Your task to perform on an android device: turn smart compose on in the gmail app Image 0: 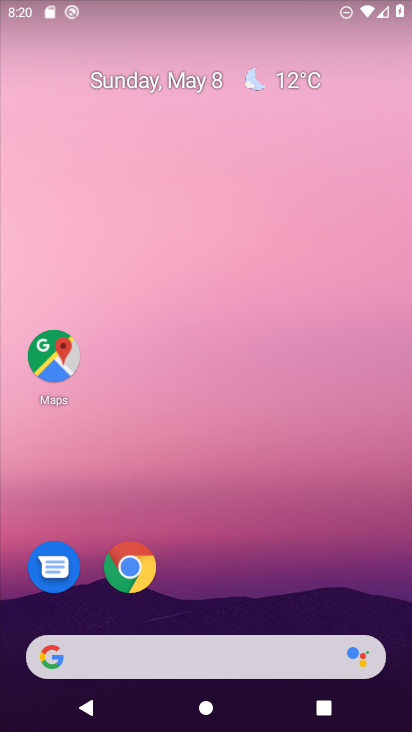
Step 0: drag from (316, 573) to (349, 92)
Your task to perform on an android device: turn smart compose on in the gmail app Image 1: 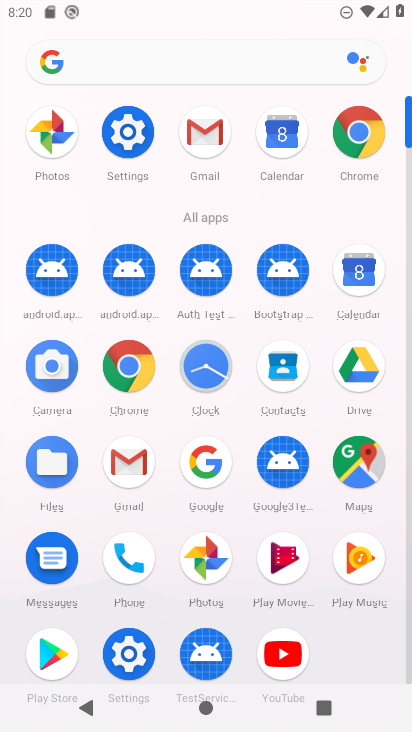
Step 1: click (203, 136)
Your task to perform on an android device: turn smart compose on in the gmail app Image 2: 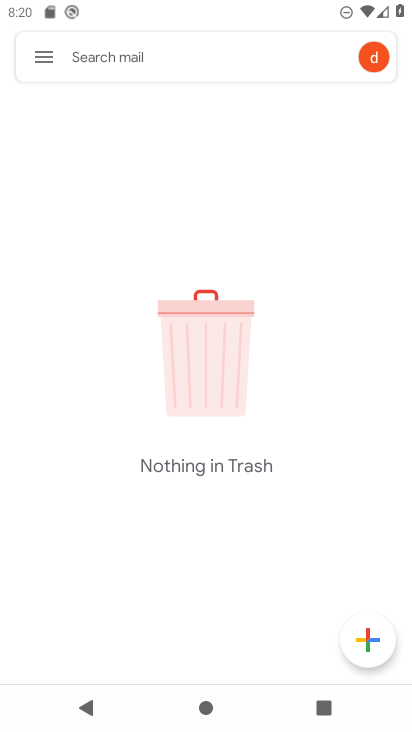
Step 2: click (34, 56)
Your task to perform on an android device: turn smart compose on in the gmail app Image 3: 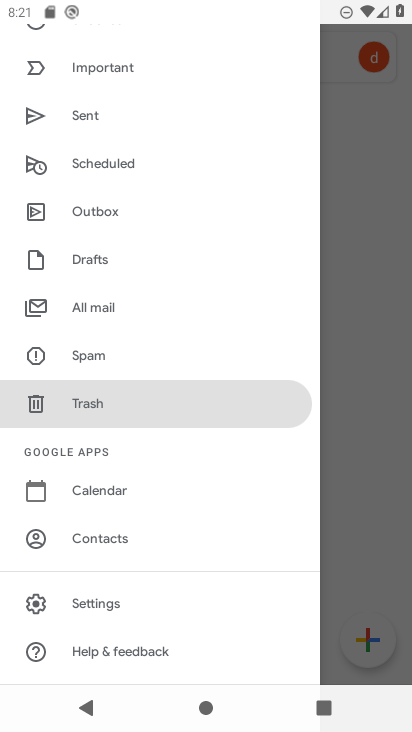
Step 3: drag from (126, 598) to (205, 288)
Your task to perform on an android device: turn smart compose on in the gmail app Image 4: 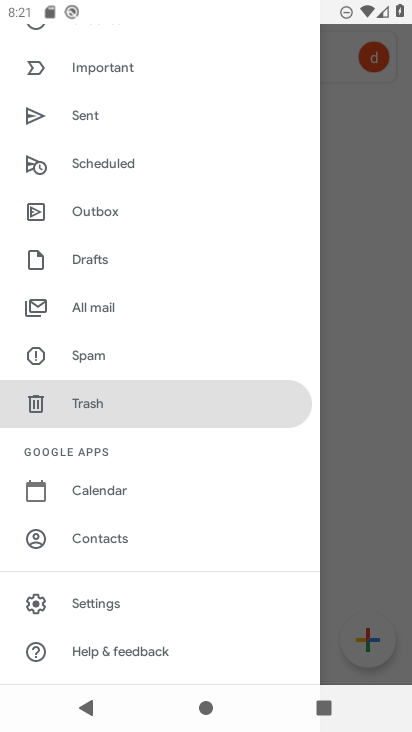
Step 4: click (137, 607)
Your task to perform on an android device: turn smart compose on in the gmail app Image 5: 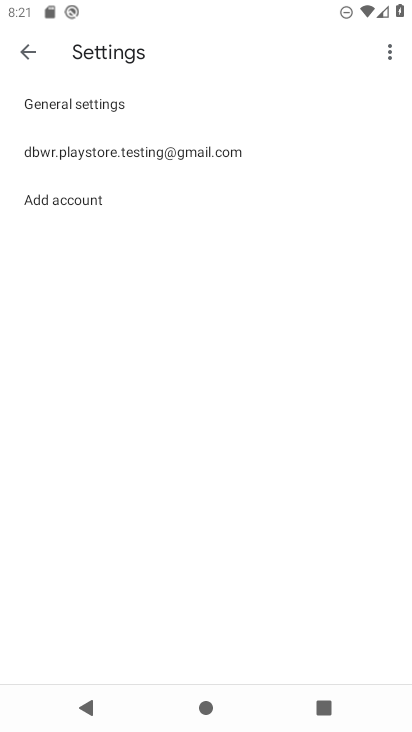
Step 5: click (96, 156)
Your task to perform on an android device: turn smart compose on in the gmail app Image 6: 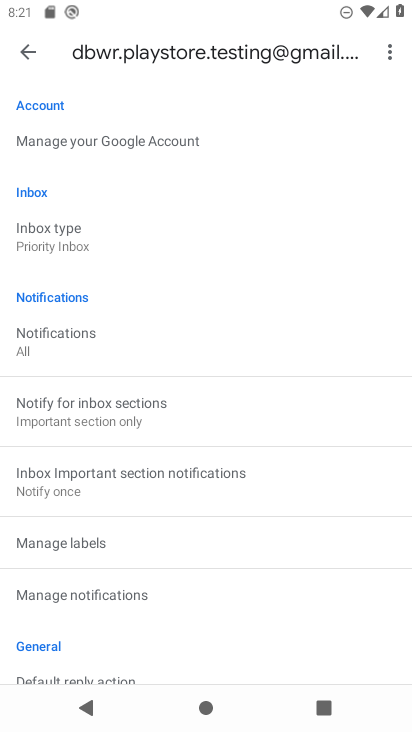
Step 6: drag from (158, 624) to (289, 218)
Your task to perform on an android device: turn smart compose on in the gmail app Image 7: 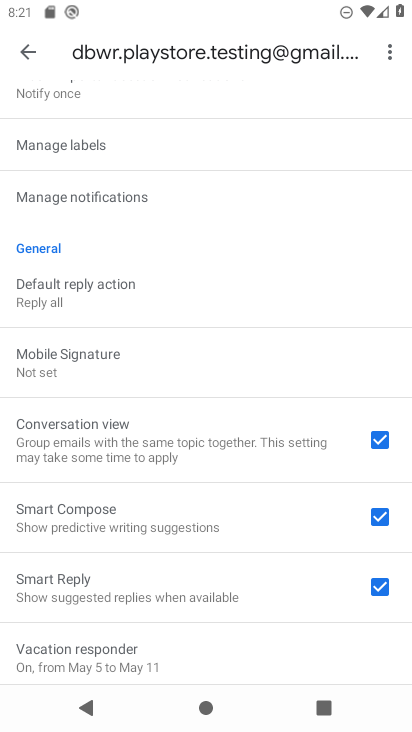
Step 7: drag from (153, 595) to (228, 273)
Your task to perform on an android device: turn smart compose on in the gmail app Image 8: 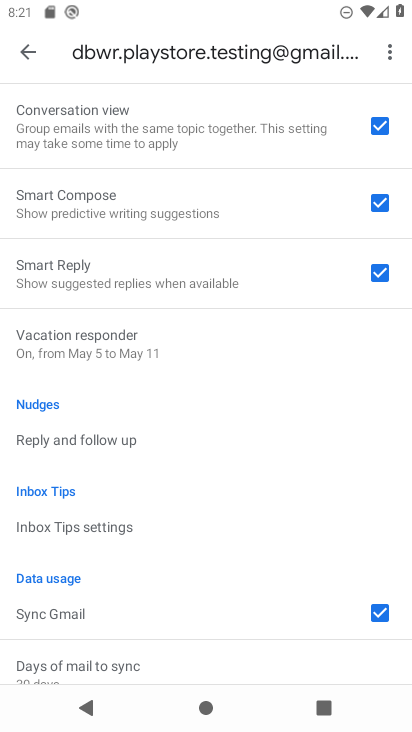
Step 8: click (387, 206)
Your task to perform on an android device: turn smart compose on in the gmail app Image 9: 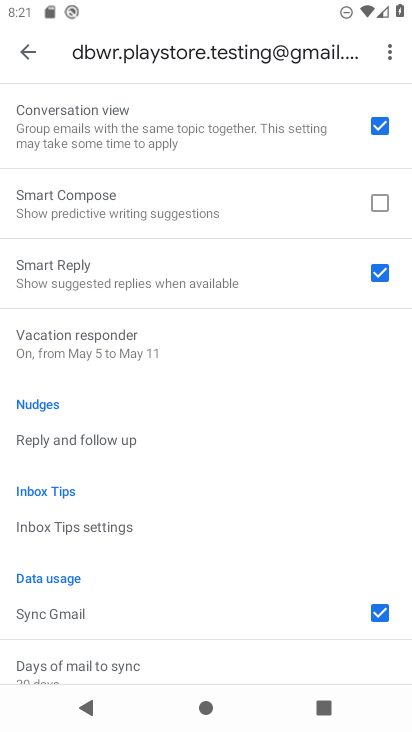
Step 9: task complete